Your task to perform on an android device: Open Google Maps and go to "Timeline" Image 0: 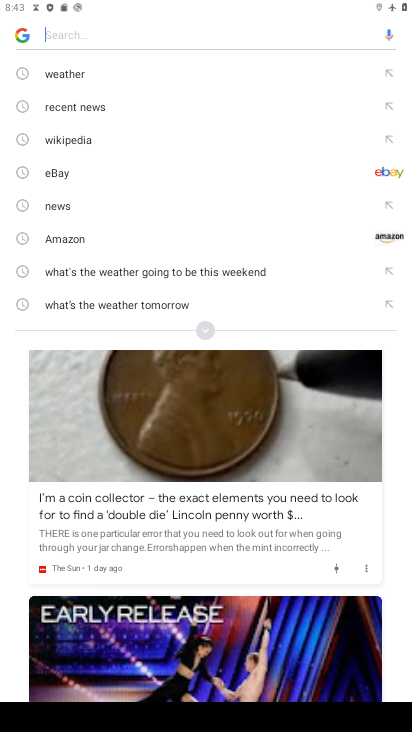
Step 0: press back button
Your task to perform on an android device: Open Google Maps and go to "Timeline" Image 1: 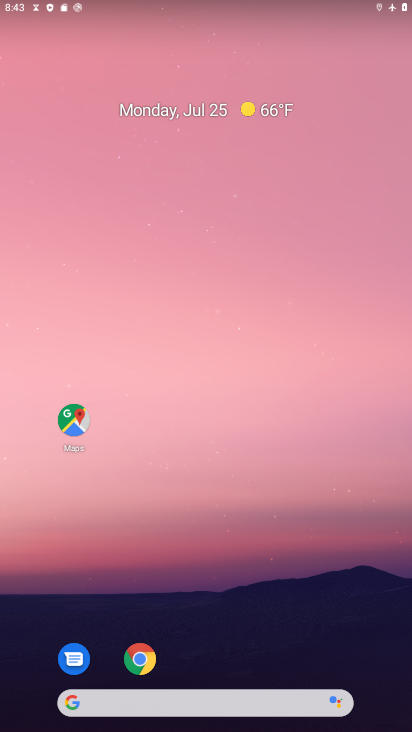
Step 1: drag from (208, 632) to (162, 93)
Your task to perform on an android device: Open Google Maps and go to "Timeline" Image 2: 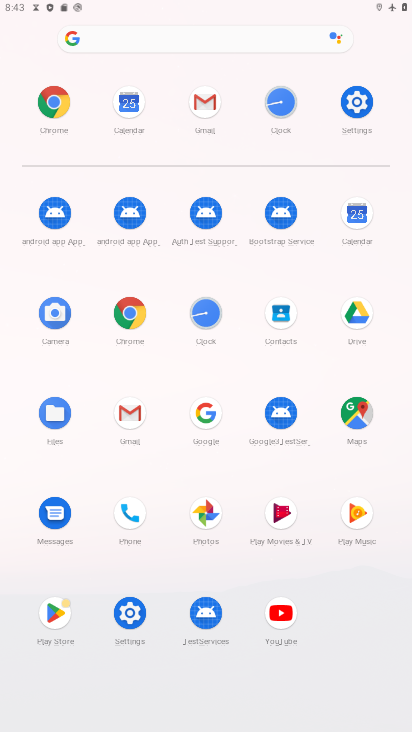
Step 2: click (371, 409)
Your task to perform on an android device: Open Google Maps and go to "Timeline" Image 3: 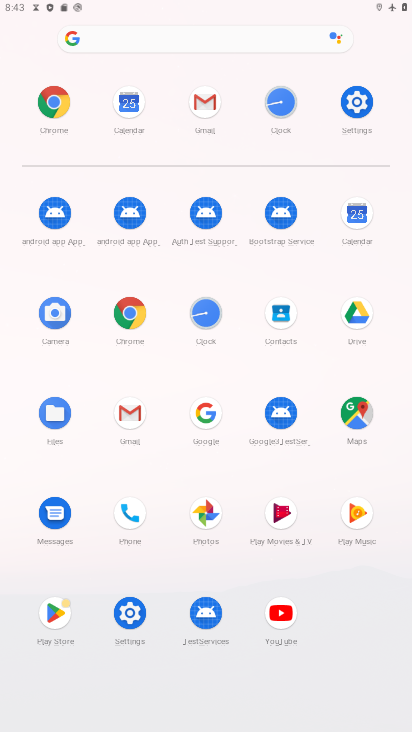
Step 3: click (356, 406)
Your task to perform on an android device: Open Google Maps and go to "Timeline" Image 4: 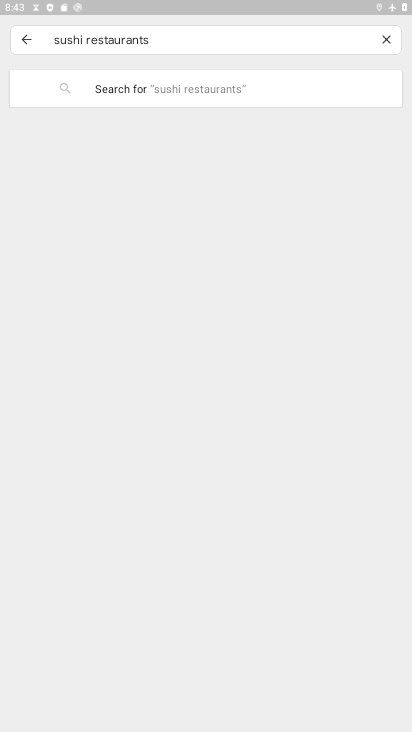
Step 4: click (28, 33)
Your task to perform on an android device: Open Google Maps and go to "Timeline" Image 5: 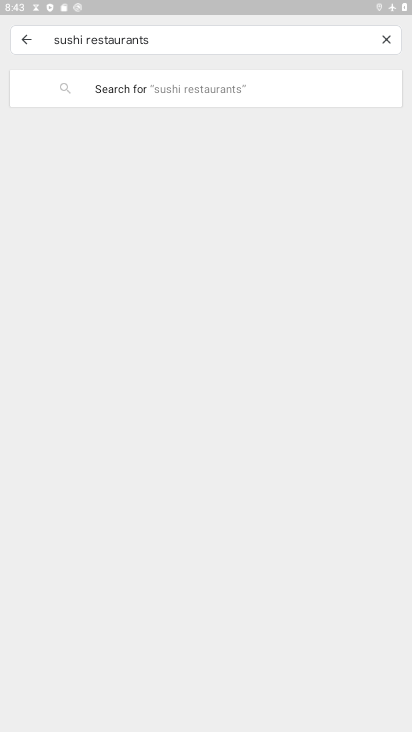
Step 5: click (29, 34)
Your task to perform on an android device: Open Google Maps and go to "Timeline" Image 6: 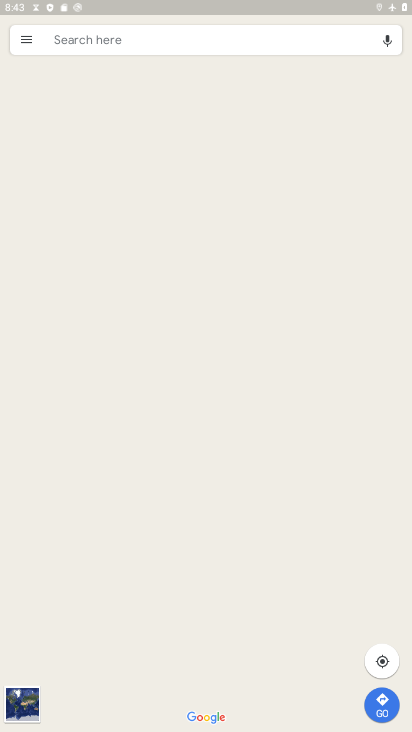
Step 6: click (23, 33)
Your task to perform on an android device: Open Google Maps and go to "Timeline" Image 7: 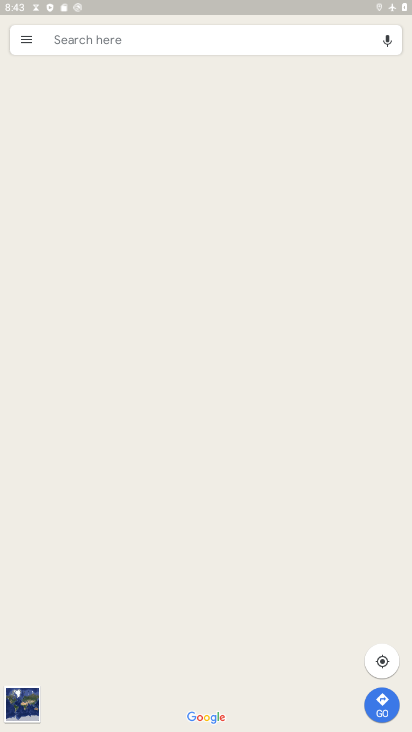
Step 7: click (23, 32)
Your task to perform on an android device: Open Google Maps and go to "Timeline" Image 8: 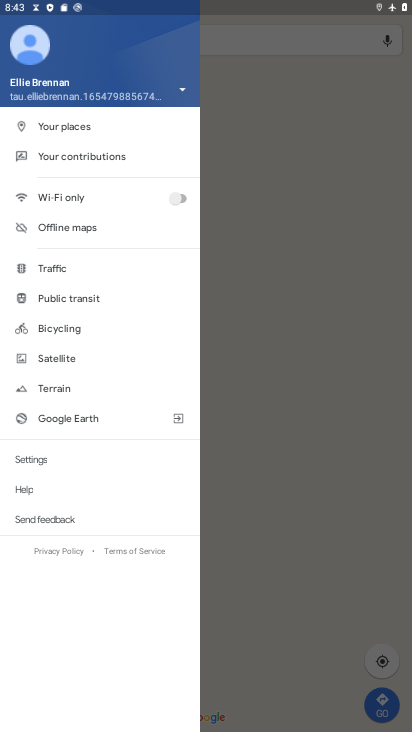
Step 8: click (179, 86)
Your task to perform on an android device: Open Google Maps and go to "Timeline" Image 9: 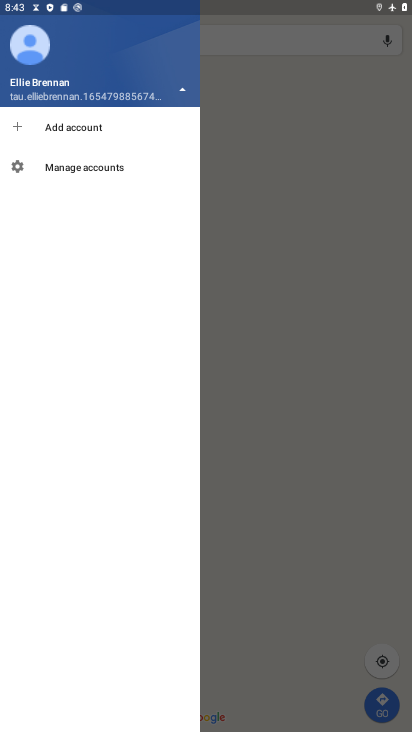
Step 9: click (177, 89)
Your task to perform on an android device: Open Google Maps and go to "Timeline" Image 10: 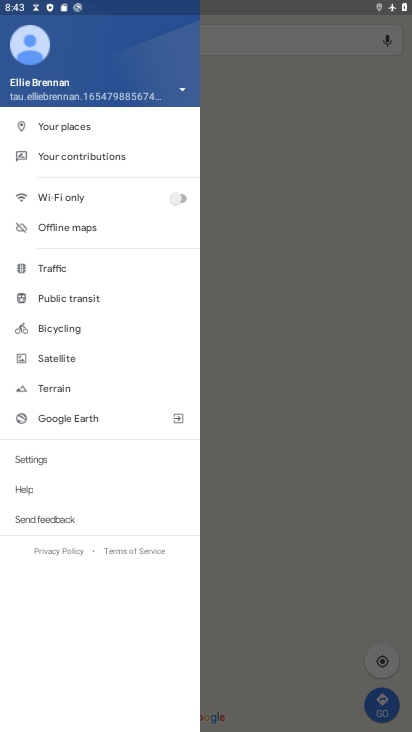
Step 10: click (172, 197)
Your task to perform on an android device: Open Google Maps and go to "Timeline" Image 11: 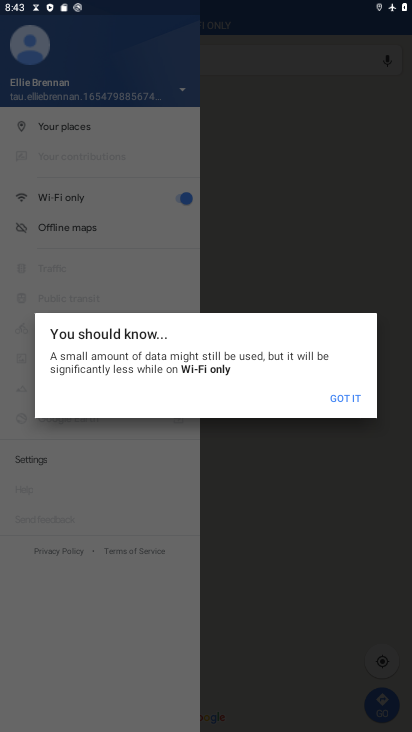
Step 11: click (179, 195)
Your task to perform on an android device: Open Google Maps and go to "Timeline" Image 12: 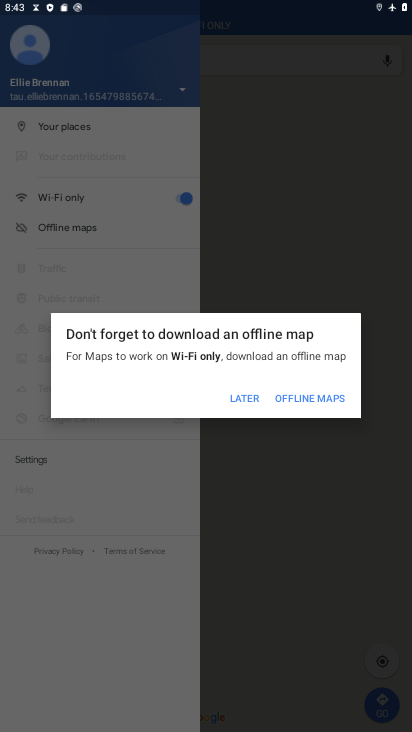
Step 12: click (239, 399)
Your task to perform on an android device: Open Google Maps and go to "Timeline" Image 13: 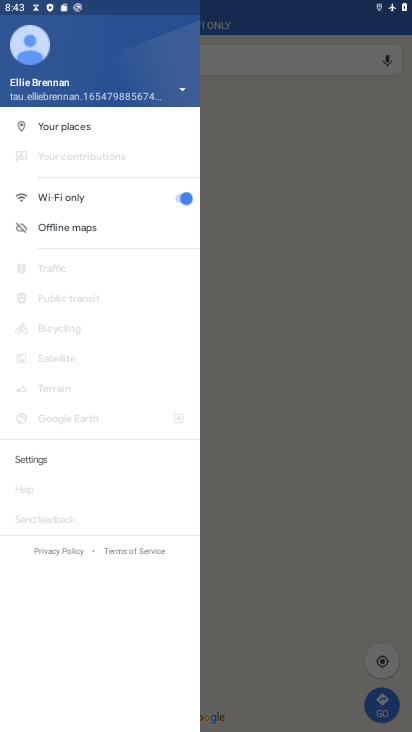
Step 13: click (187, 197)
Your task to perform on an android device: Open Google Maps and go to "Timeline" Image 14: 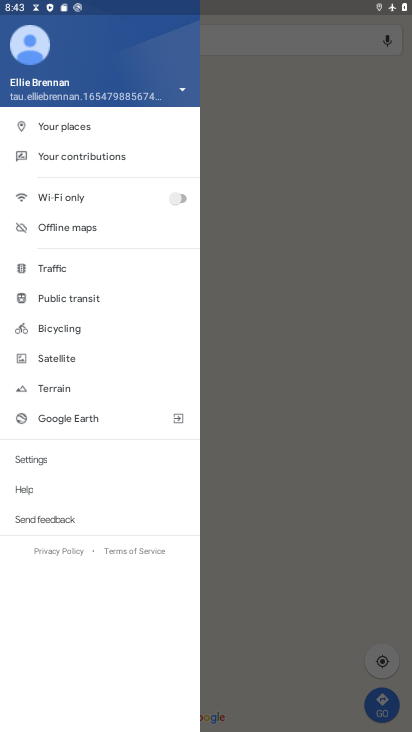
Step 14: click (84, 126)
Your task to perform on an android device: Open Google Maps and go to "Timeline" Image 15: 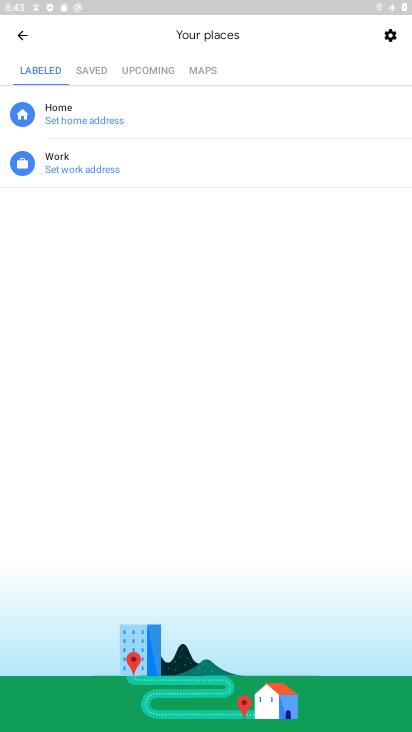
Step 15: task complete